Your task to perform on an android device: Go to sound settings Image 0: 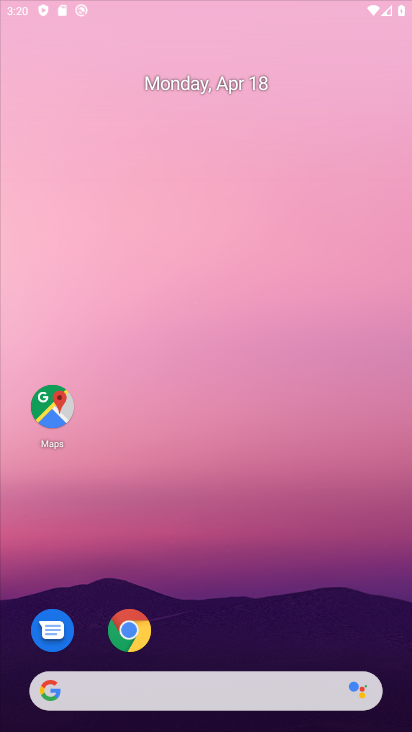
Step 0: drag from (248, 252) to (241, 69)
Your task to perform on an android device: Go to sound settings Image 1: 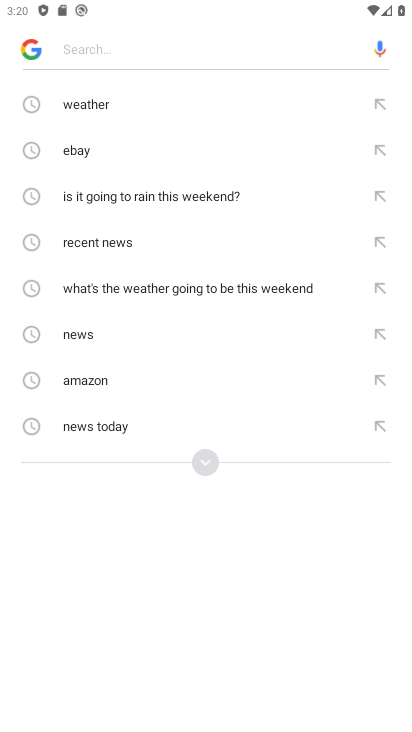
Step 1: press home button
Your task to perform on an android device: Go to sound settings Image 2: 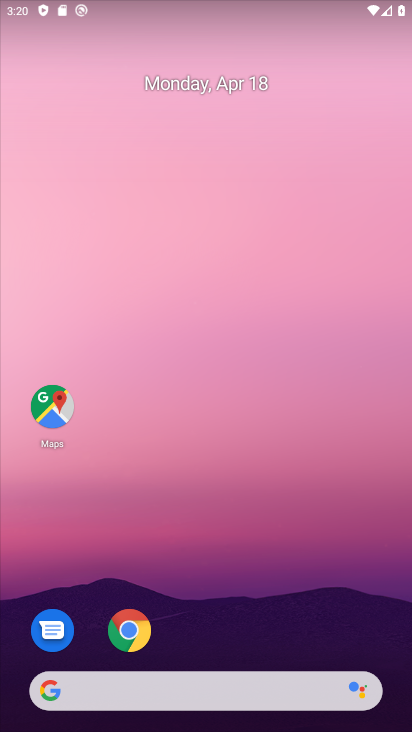
Step 2: drag from (270, 537) to (248, 33)
Your task to perform on an android device: Go to sound settings Image 3: 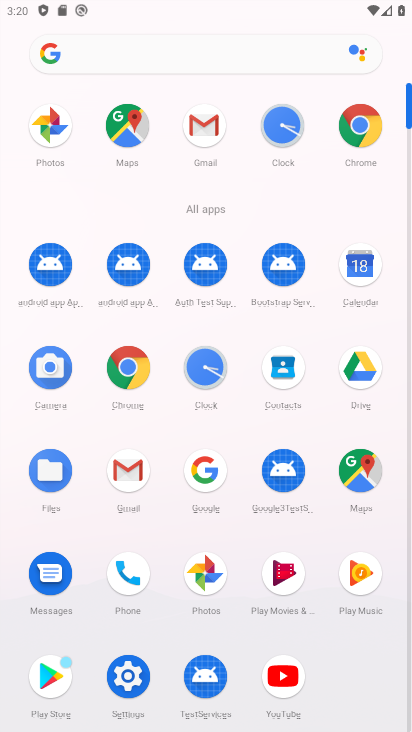
Step 3: drag from (149, 219) to (220, 7)
Your task to perform on an android device: Go to sound settings Image 4: 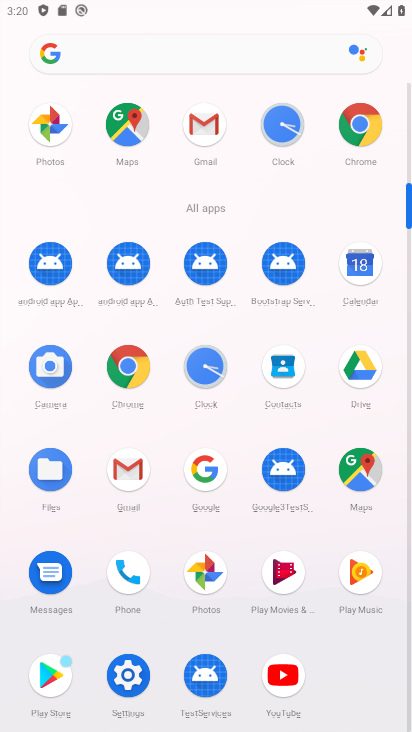
Step 4: click (128, 678)
Your task to perform on an android device: Go to sound settings Image 5: 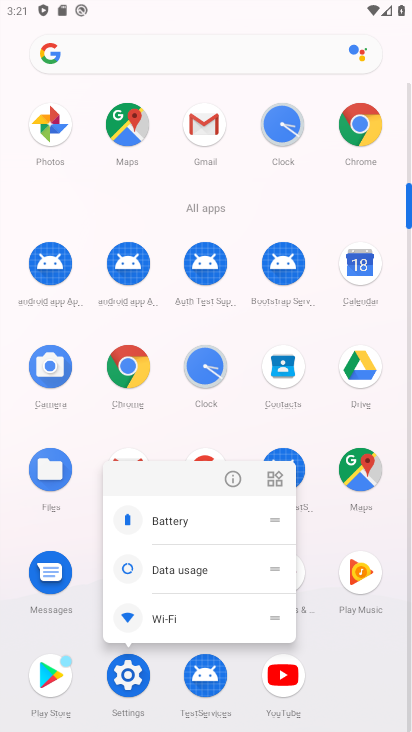
Step 5: click (135, 675)
Your task to perform on an android device: Go to sound settings Image 6: 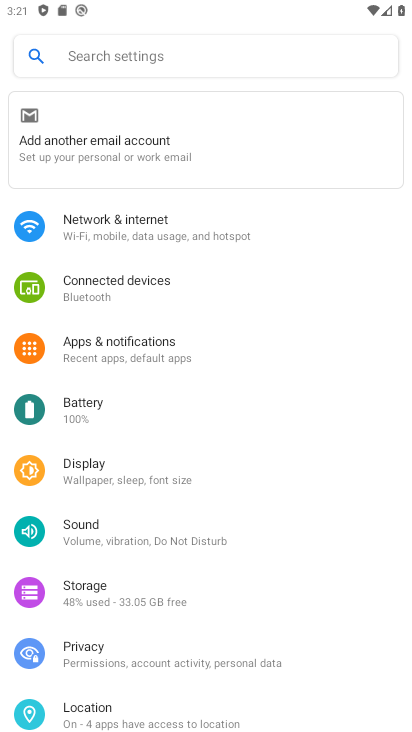
Step 6: click (137, 534)
Your task to perform on an android device: Go to sound settings Image 7: 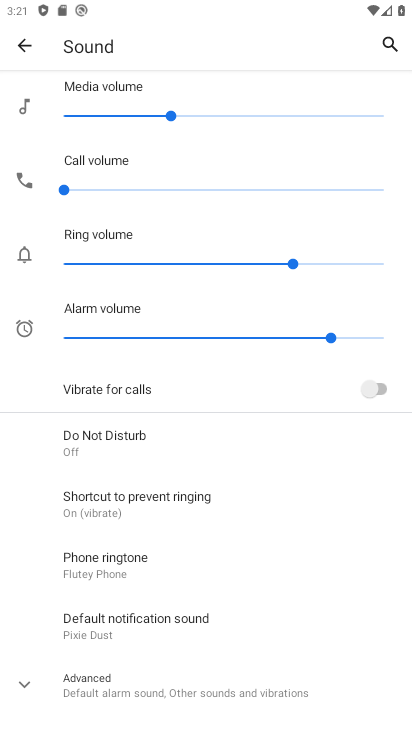
Step 7: task complete